Your task to perform on an android device: turn on improve location accuracy Image 0: 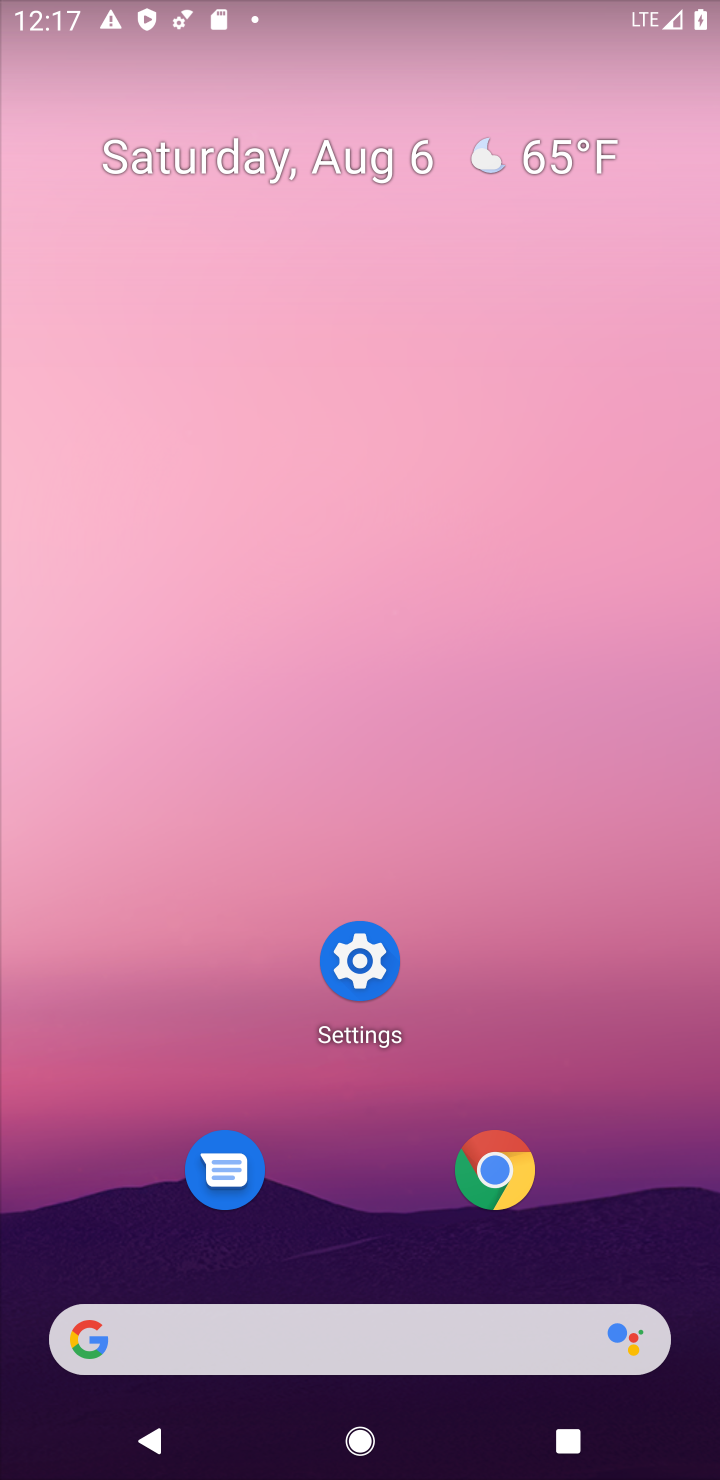
Step 0: click (361, 965)
Your task to perform on an android device: turn on improve location accuracy Image 1: 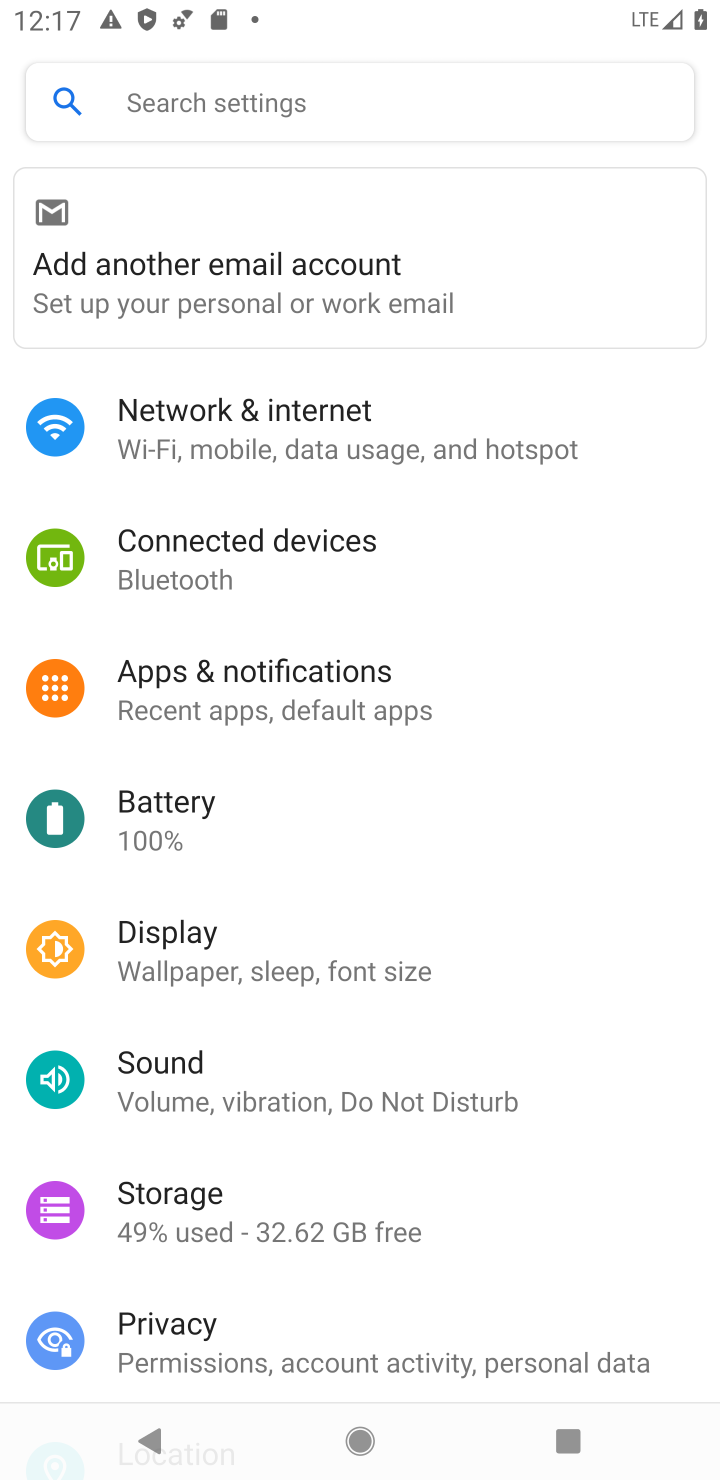
Step 1: drag from (476, 1009) to (439, 609)
Your task to perform on an android device: turn on improve location accuracy Image 2: 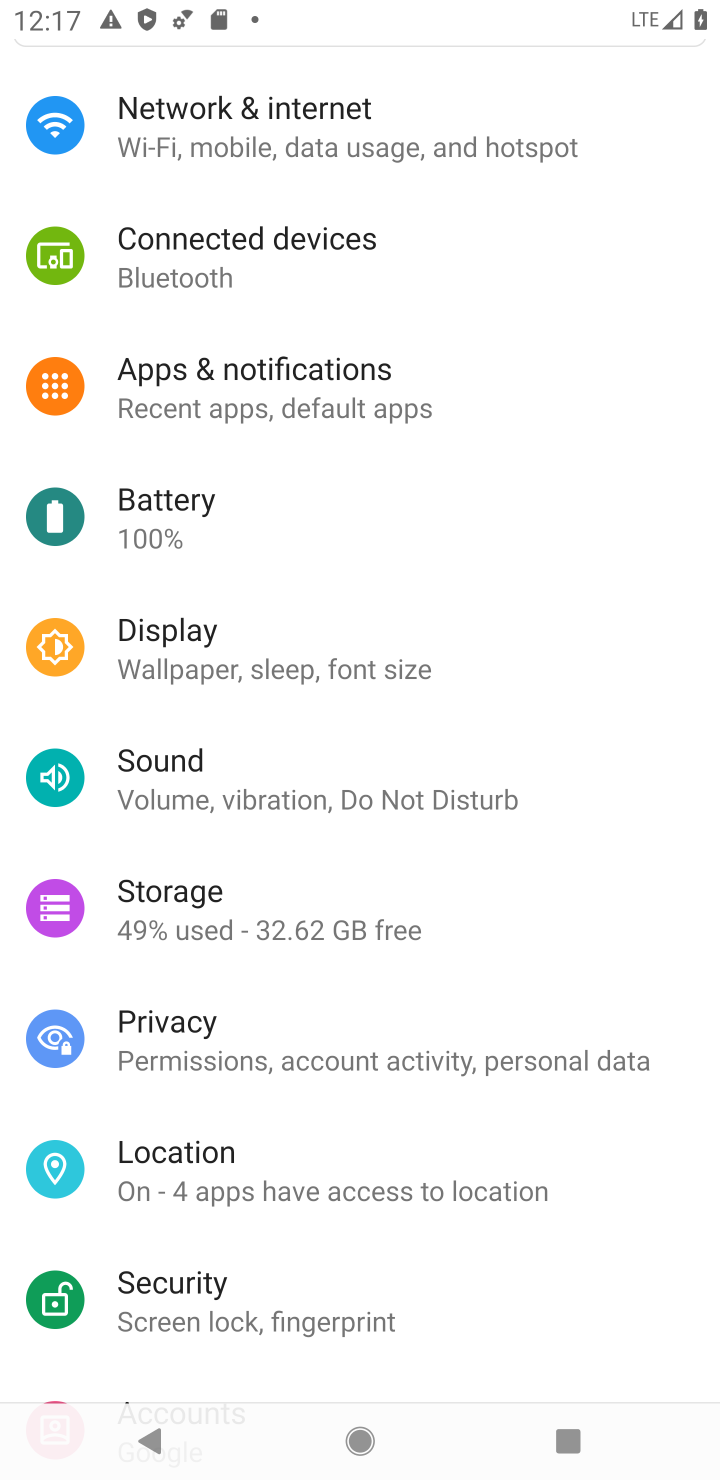
Step 2: click (221, 1161)
Your task to perform on an android device: turn on improve location accuracy Image 3: 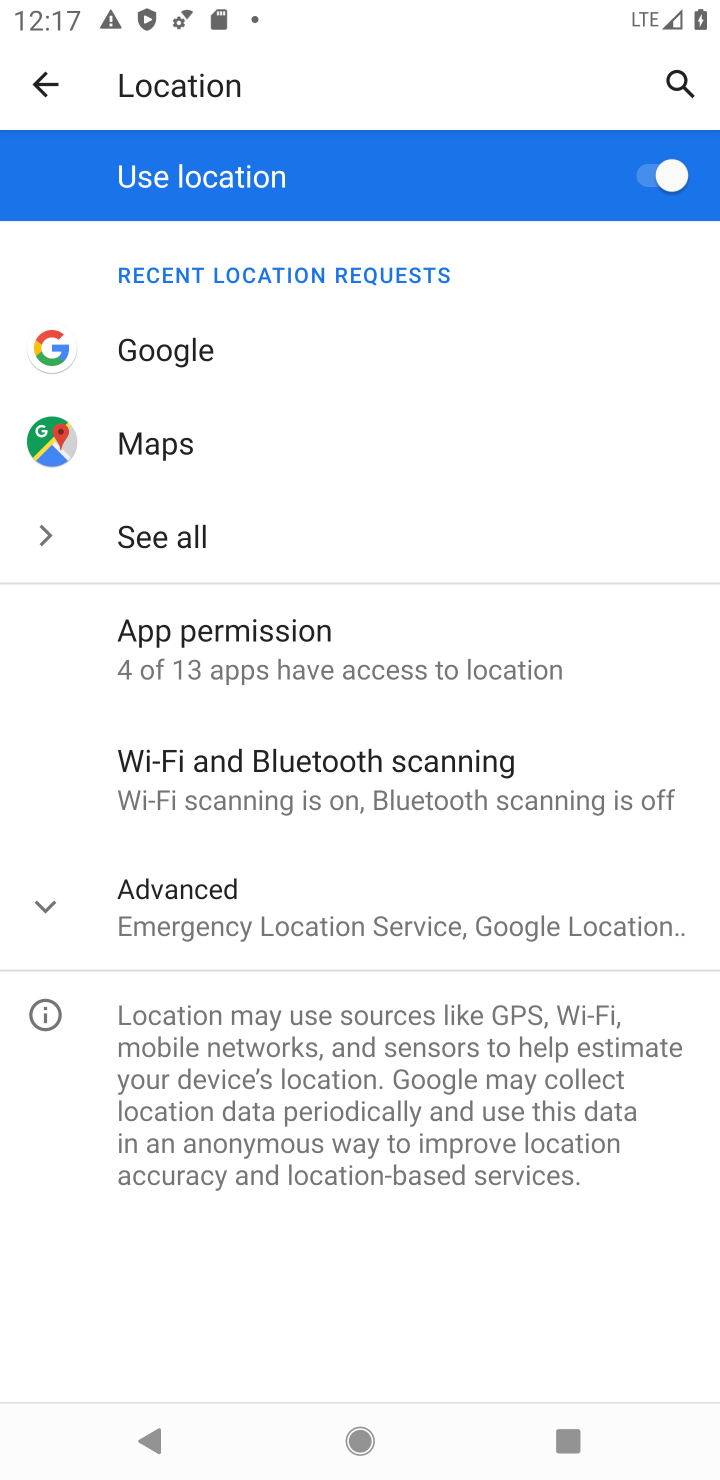
Step 3: click (208, 901)
Your task to perform on an android device: turn on improve location accuracy Image 4: 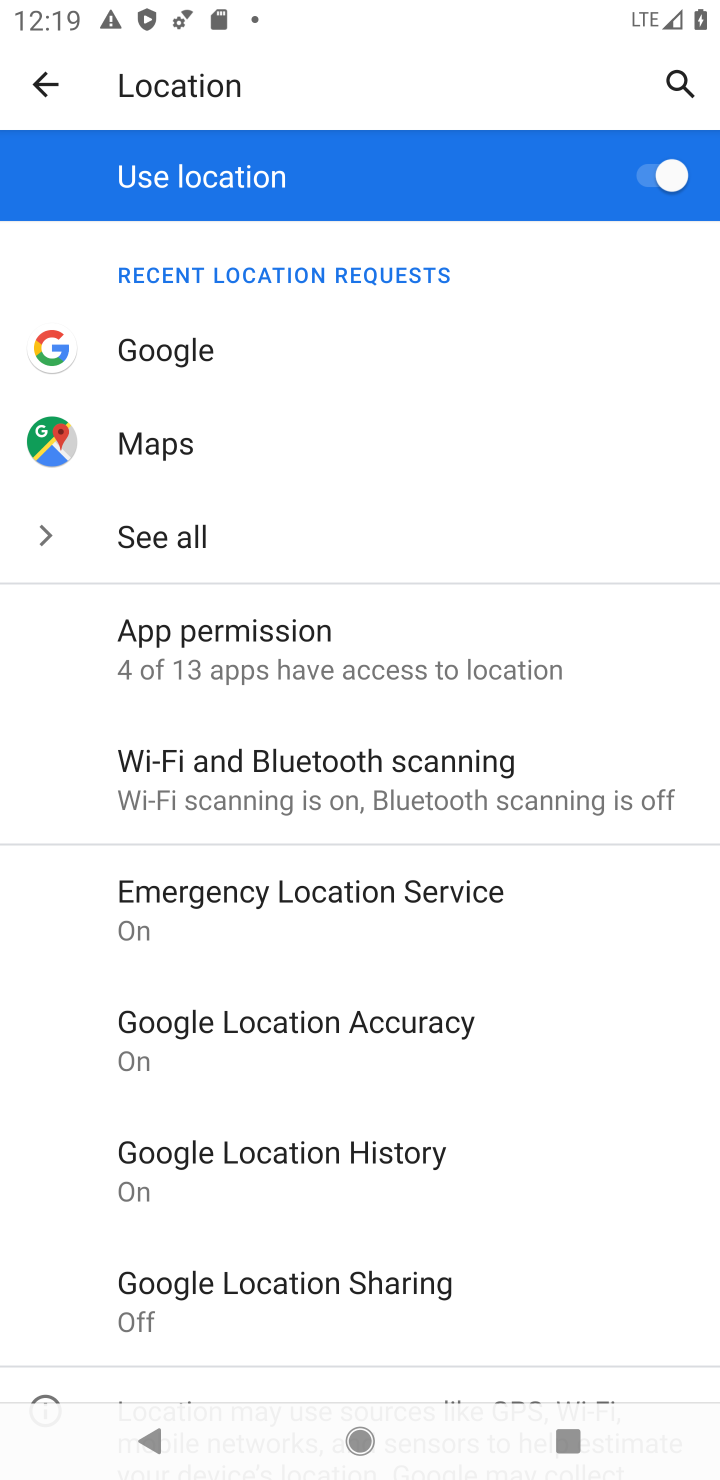
Step 4: task complete